Your task to perform on an android device: Open the Play Movies app and select the watchlist tab. Image 0: 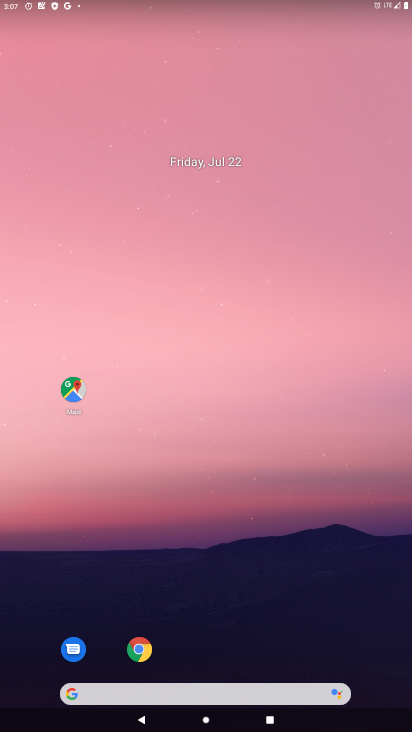
Step 0: drag from (278, 645) to (257, 67)
Your task to perform on an android device: Open the Play Movies app and select the watchlist tab. Image 1: 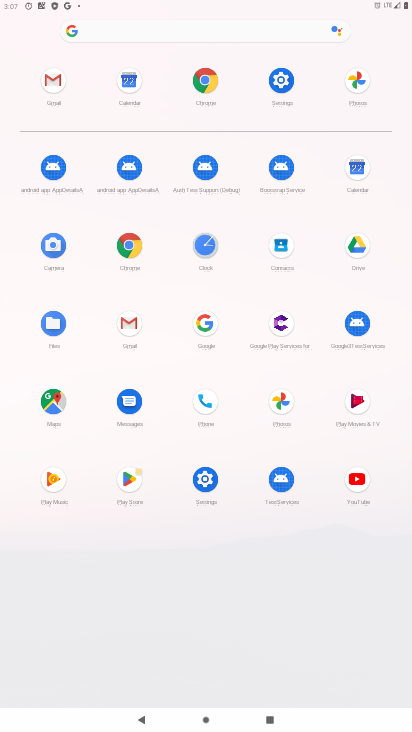
Step 1: click (360, 402)
Your task to perform on an android device: Open the Play Movies app and select the watchlist tab. Image 2: 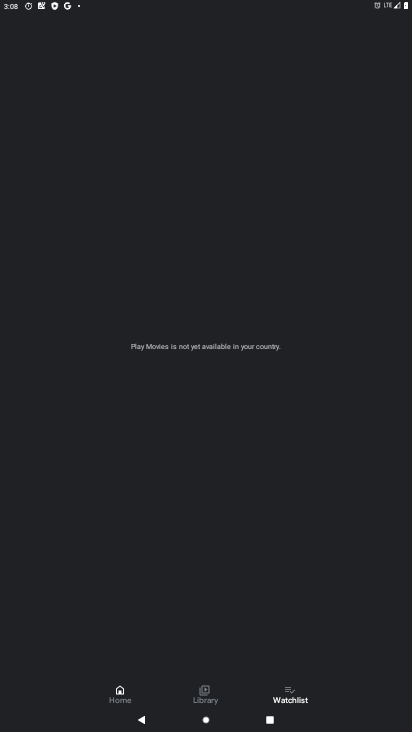
Step 2: click (293, 696)
Your task to perform on an android device: Open the Play Movies app and select the watchlist tab. Image 3: 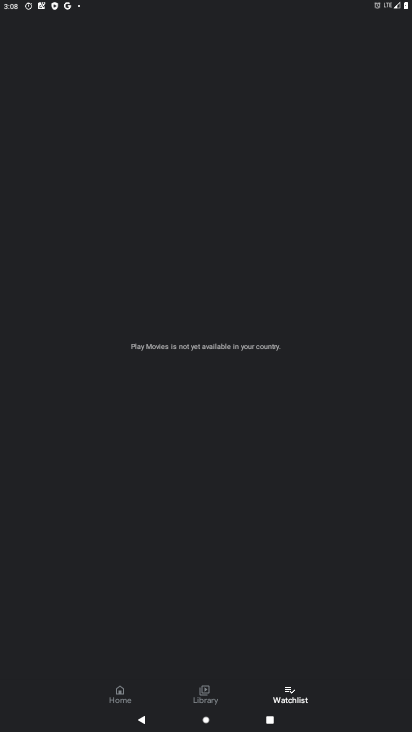
Step 3: task complete